Your task to perform on an android device: delete browsing data in the chrome app Image 0: 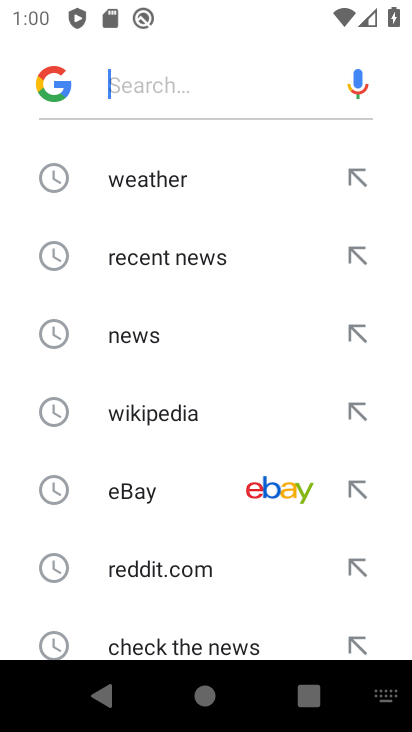
Step 0: press home button
Your task to perform on an android device: delete browsing data in the chrome app Image 1: 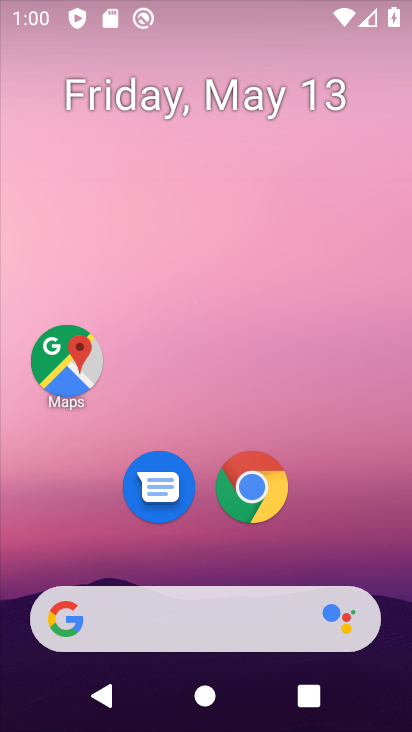
Step 1: drag from (325, 300) to (315, 165)
Your task to perform on an android device: delete browsing data in the chrome app Image 2: 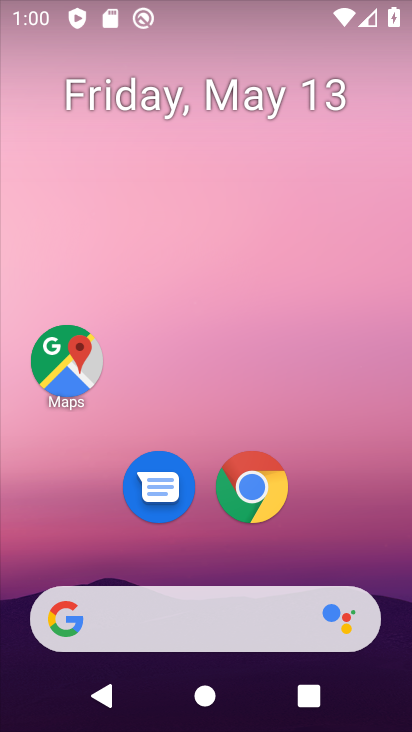
Step 2: drag from (300, 523) to (335, 107)
Your task to perform on an android device: delete browsing data in the chrome app Image 3: 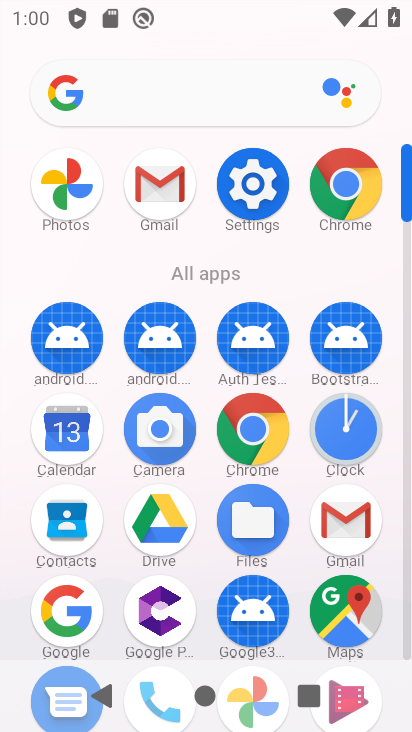
Step 3: click (258, 440)
Your task to perform on an android device: delete browsing data in the chrome app Image 4: 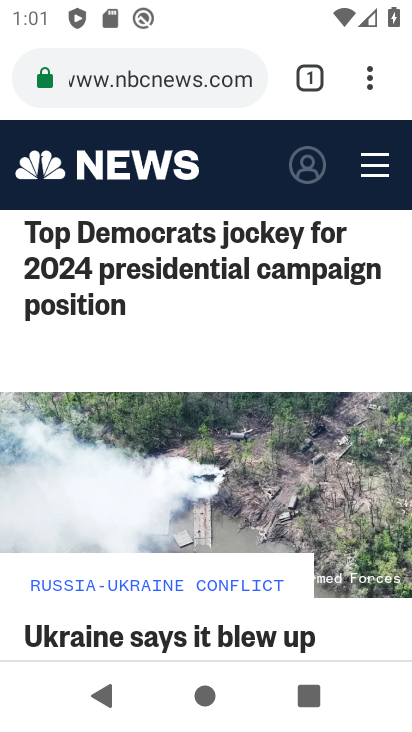
Step 4: drag from (372, 90) to (138, 418)
Your task to perform on an android device: delete browsing data in the chrome app Image 5: 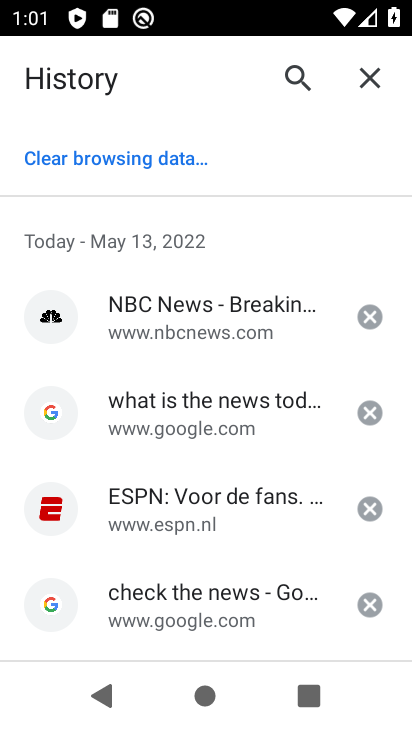
Step 5: click (188, 160)
Your task to perform on an android device: delete browsing data in the chrome app Image 6: 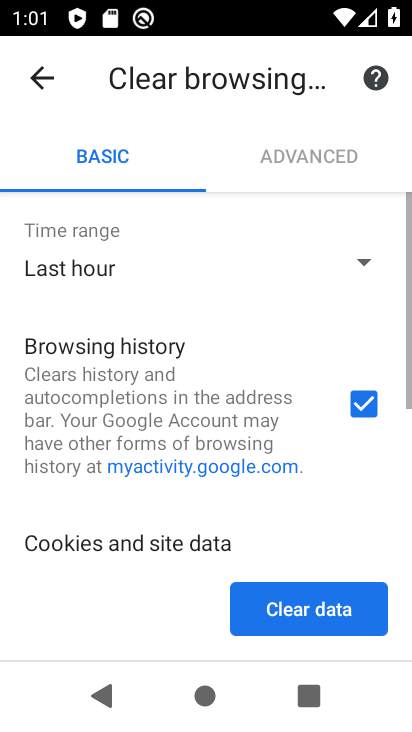
Step 6: click (308, 596)
Your task to perform on an android device: delete browsing data in the chrome app Image 7: 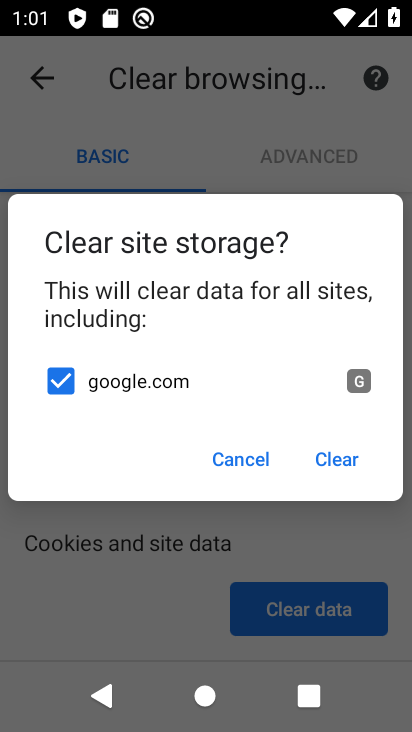
Step 7: click (330, 459)
Your task to perform on an android device: delete browsing data in the chrome app Image 8: 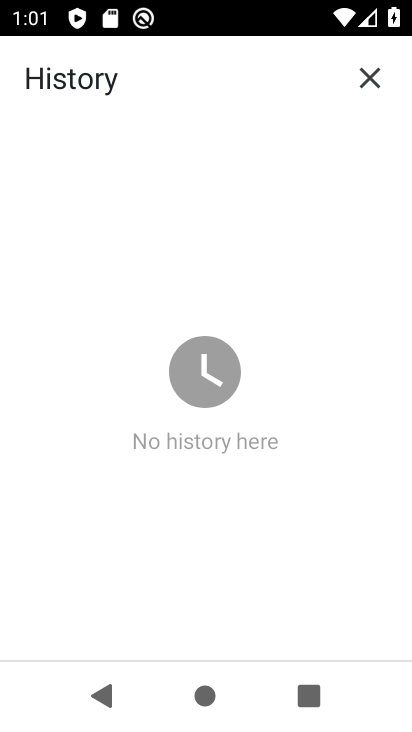
Step 8: task complete